Your task to perform on an android device: Open Youtube and go to "Your channel" Image 0: 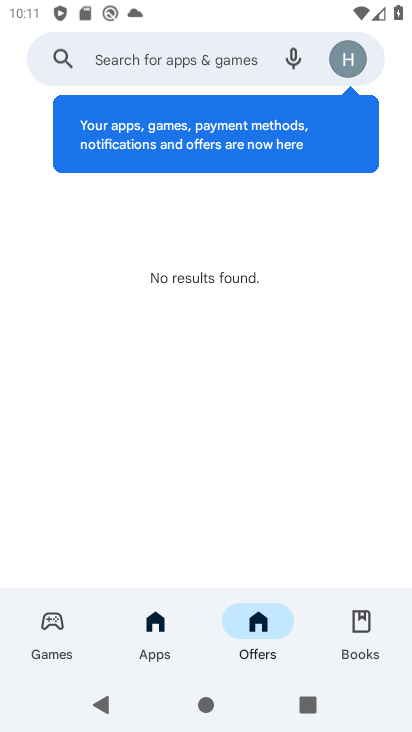
Step 0: task complete